Your task to perform on an android device: manage bookmarks in the chrome app Image 0: 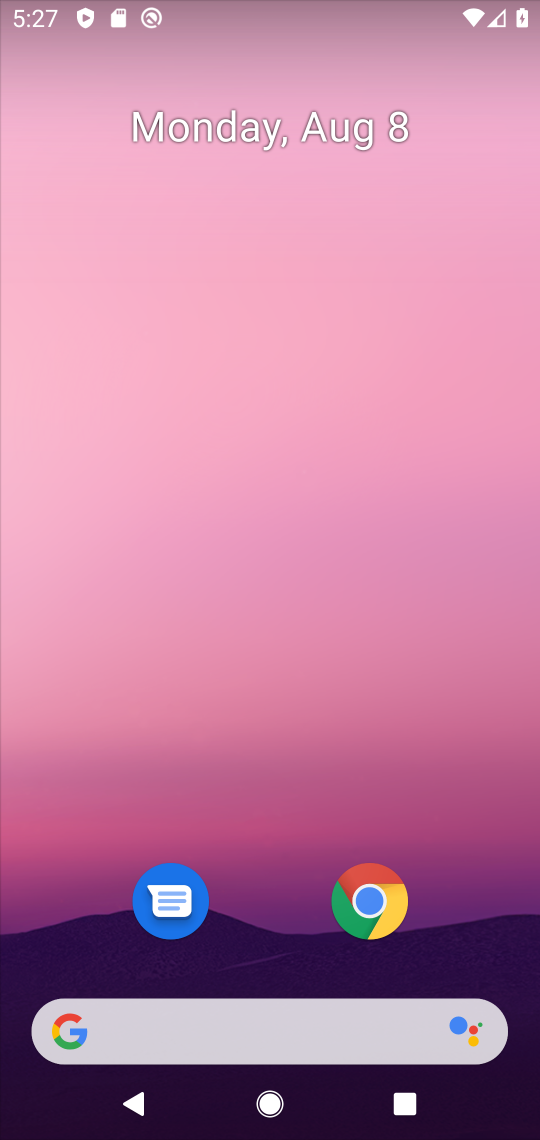
Step 0: click (365, 935)
Your task to perform on an android device: manage bookmarks in the chrome app Image 1: 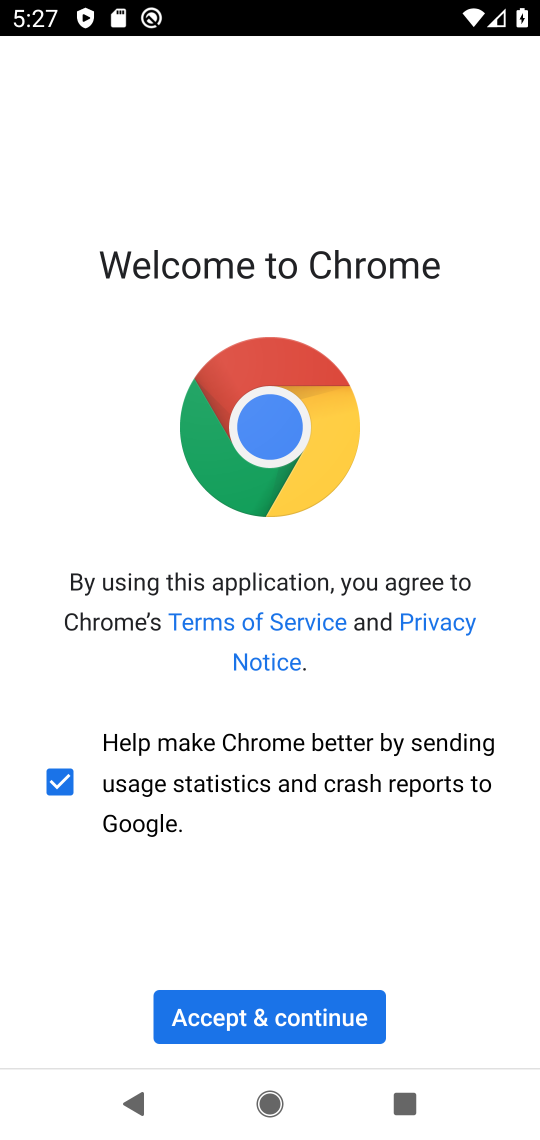
Step 1: click (340, 1028)
Your task to perform on an android device: manage bookmarks in the chrome app Image 2: 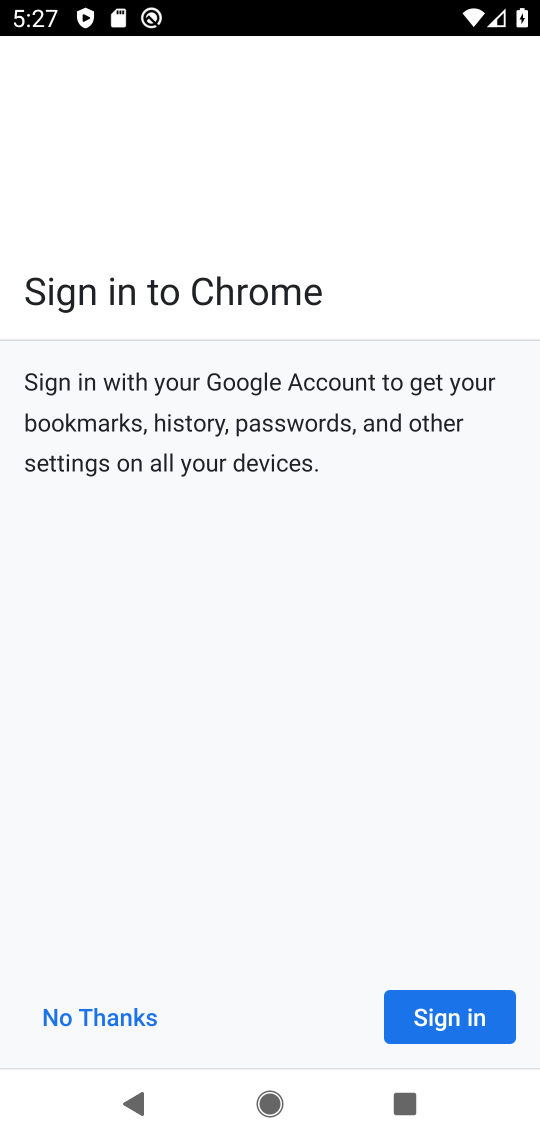
Step 2: click (120, 1025)
Your task to perform on an android device: manage bookmarks in the chrome app Image 3: 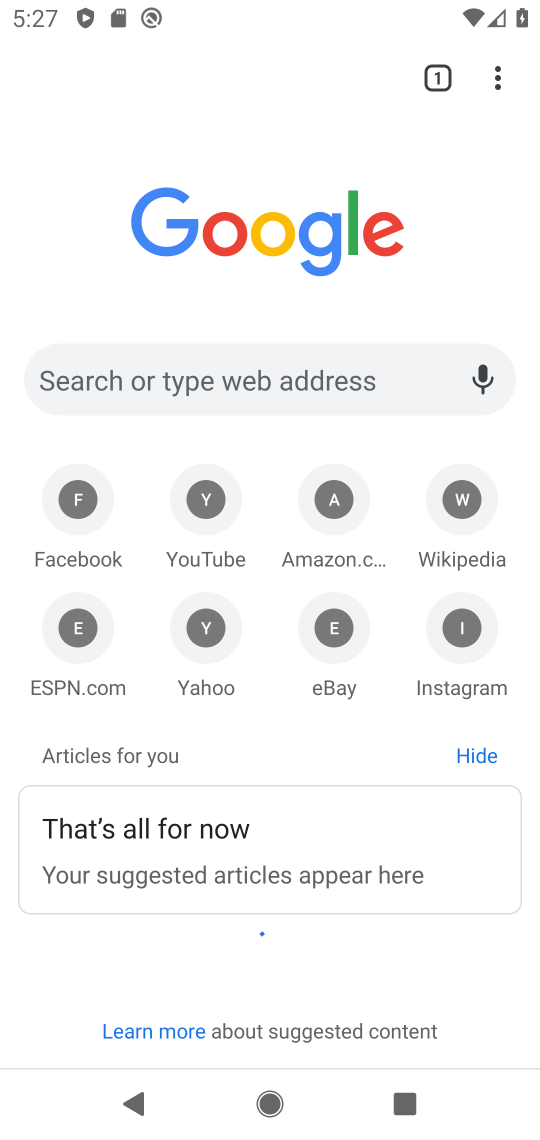
Step 3: click (490, 86)
Your task to perform on an android device: manage bookmarks in the chrome app Image 4: 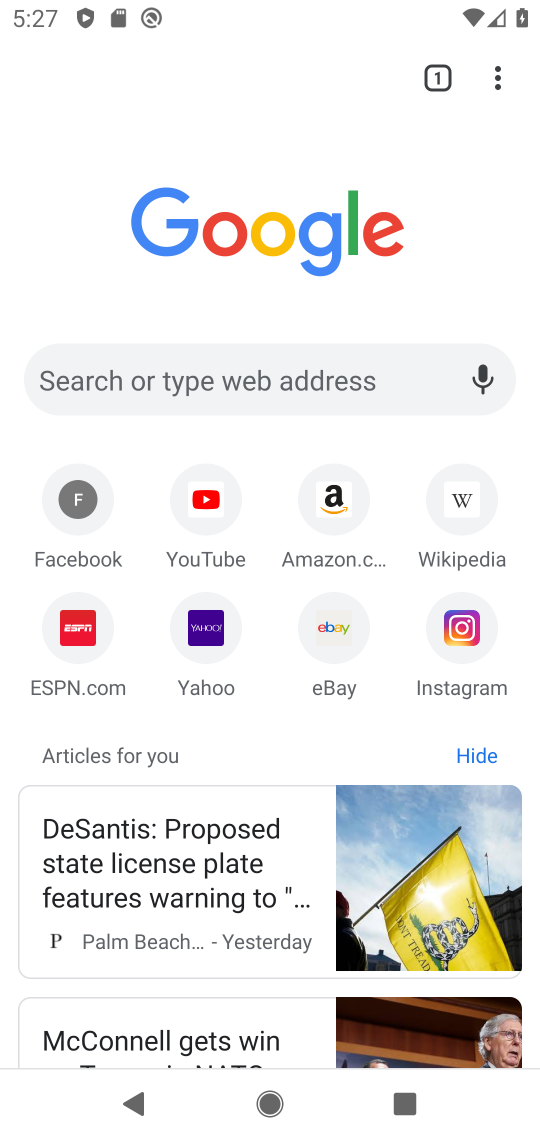
Step 4: click (497, 82)
Your task to perform on an android device: manage bookmarks in the chrome app Image 5: 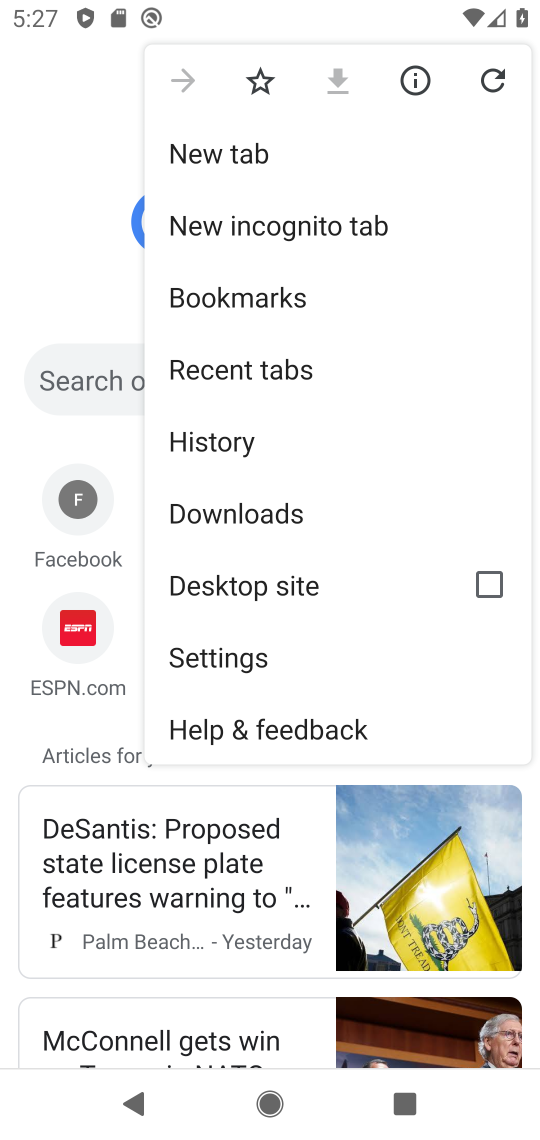
Step 5: click (347, 302)
Your task to perform on an android device: manage bookmarks in the chrome app Image 6: 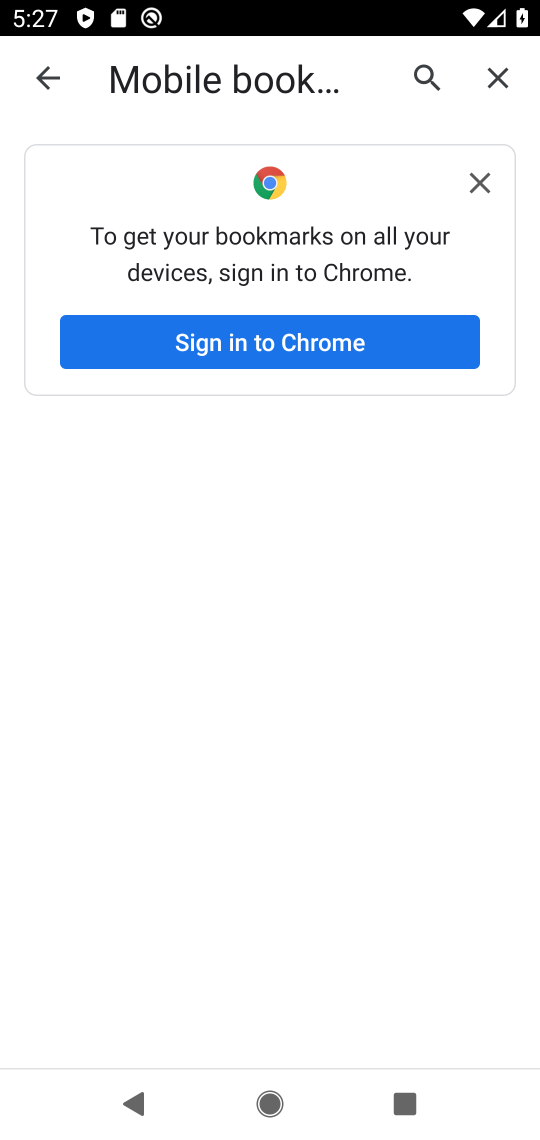
Step 6: task complete